Your task to perform on an android device: open app "Truecaller" Image 0: 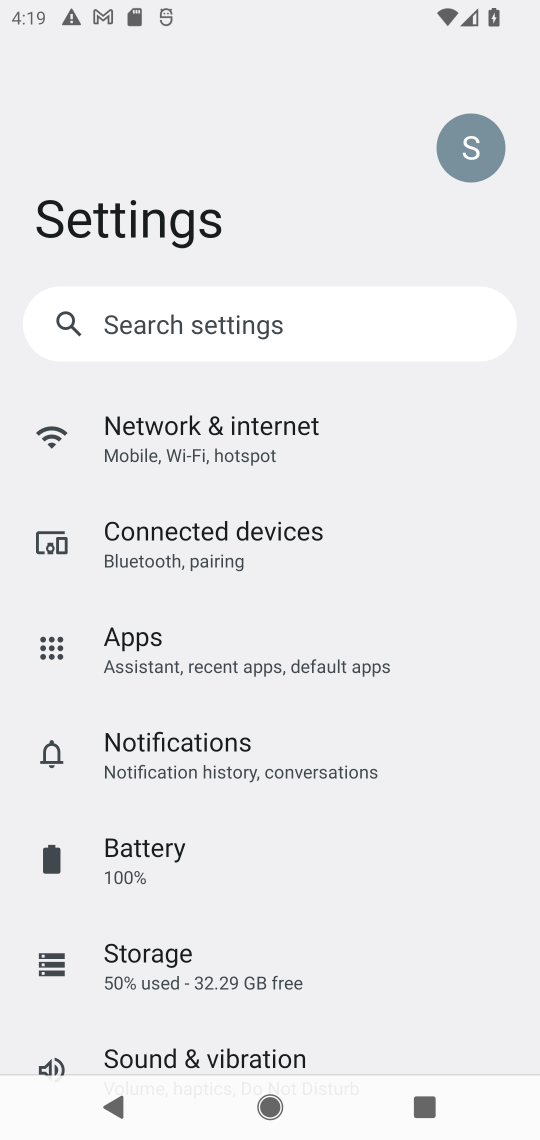
Step 0: press home button
Your task to perform on an android device: open app "Truecaller" Image 1: 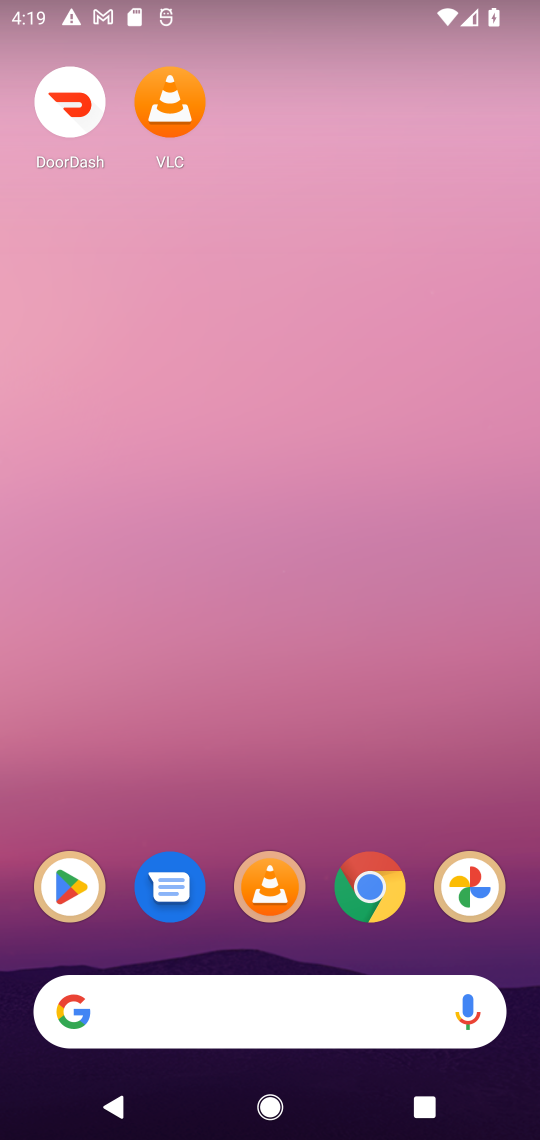
Step 1: click (73, 887)
Your task to perform on an android device: open app "Truecaller" Image 2: 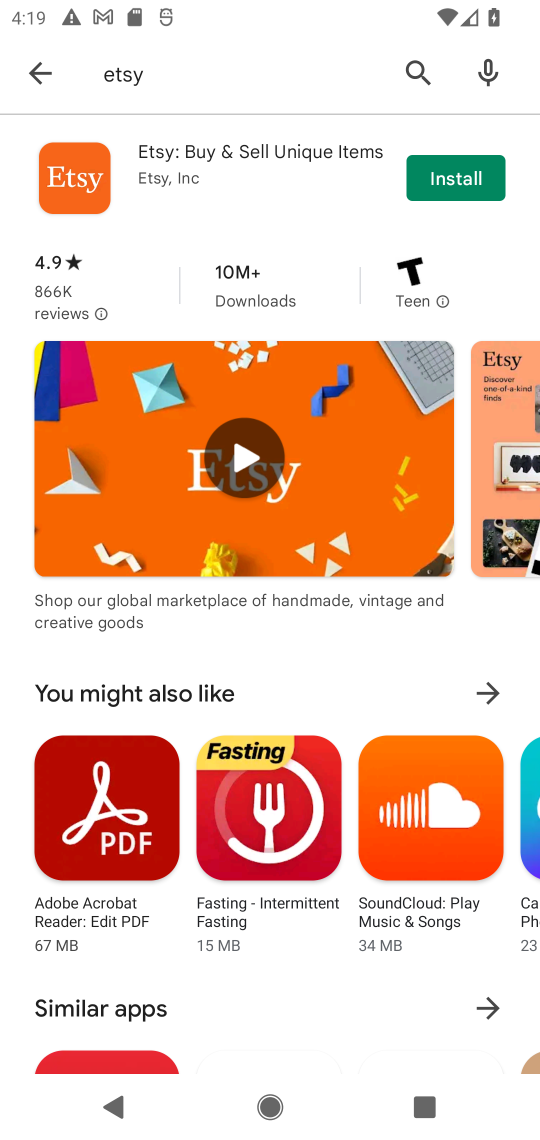
Step 2: click (208, 87)
Your task to perform on an android device: open app "Truecaller" Image 3: 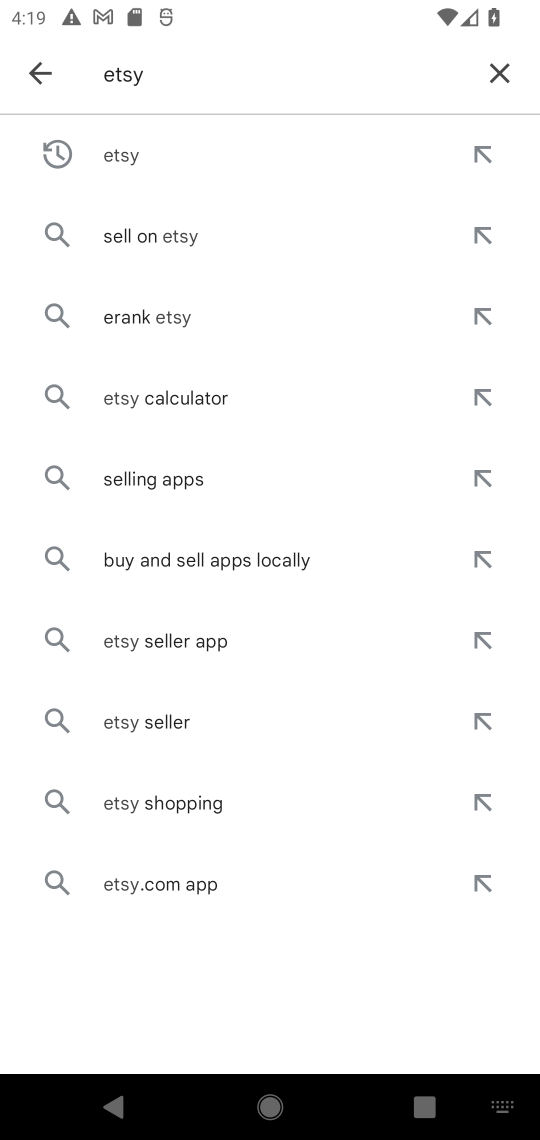
Step 3: click (506, 75)
Your task to perform on an android device: open app "Truecaller" Image 4: 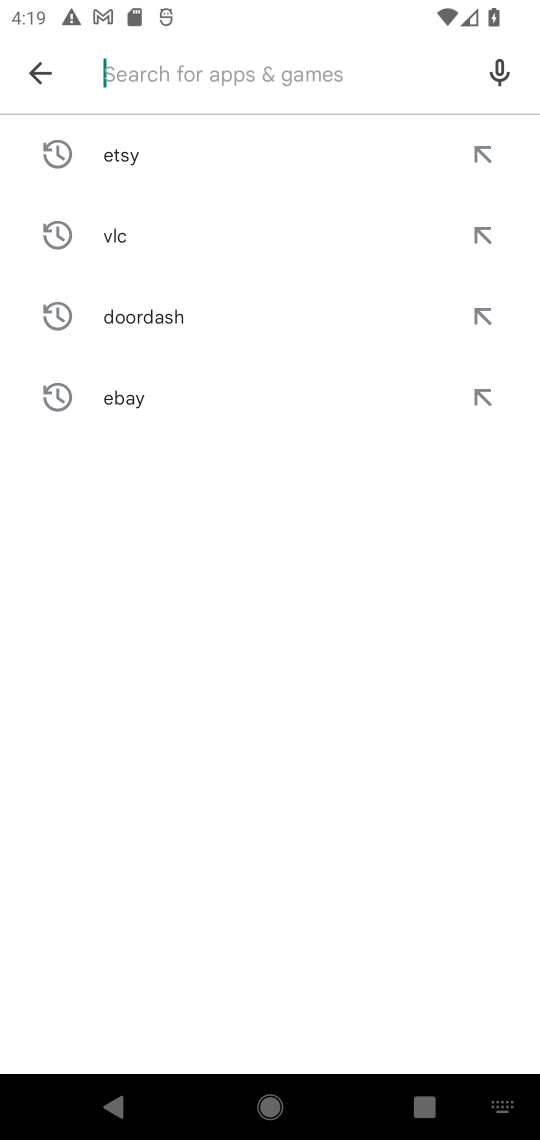
Step 4: type "truecaller"
Your task to perform on an android device: open app "Truecaller" Image 5: 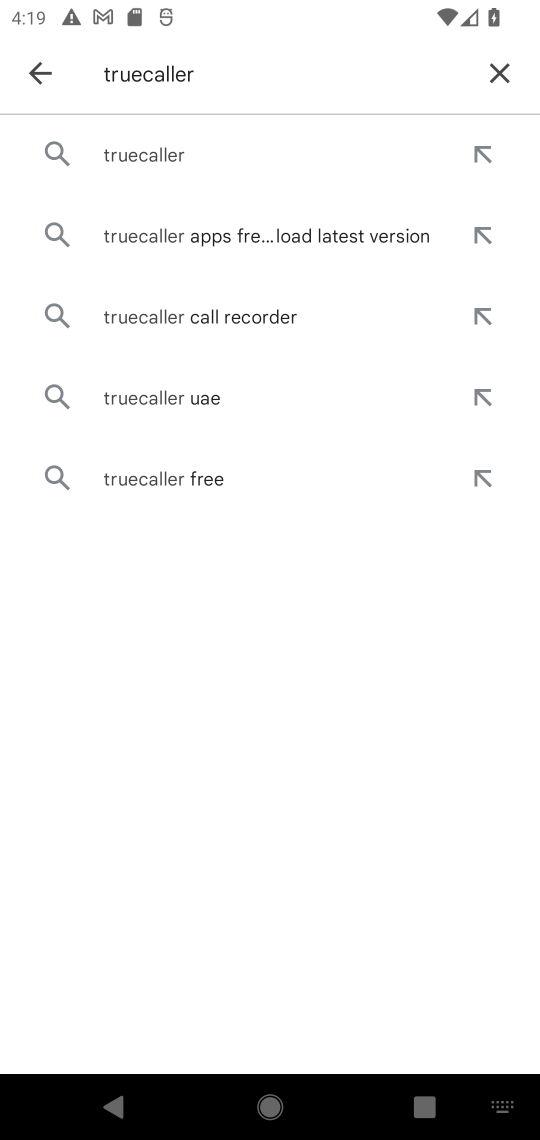
Step 5: click (147, 147)
Your task to perform on an android device: open app "Truecaller" Image 6: 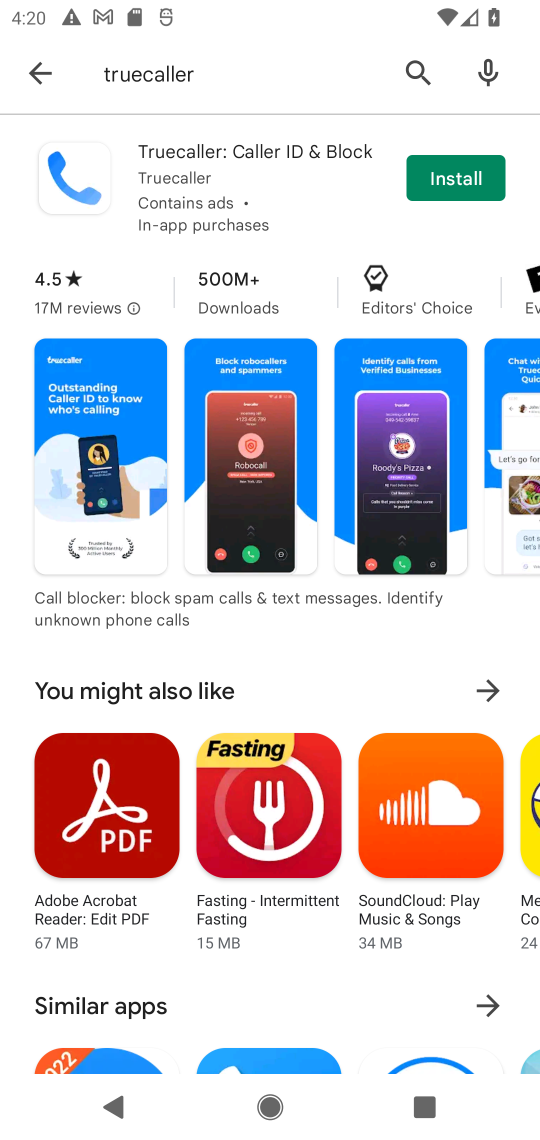
Step 6: task complete